Your task to perform on an android device: open a new tab in the chrome app Image 0: 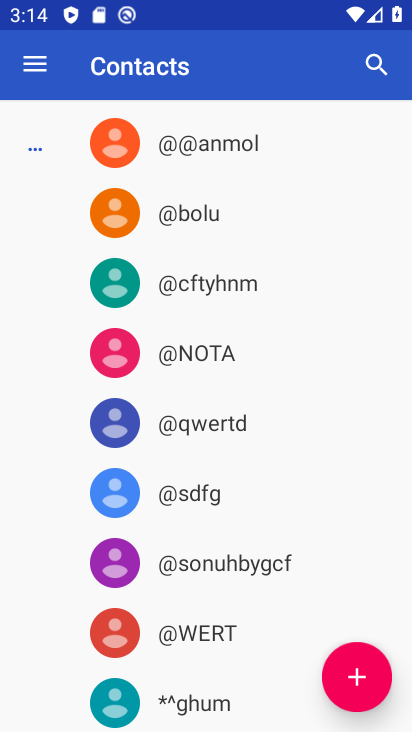
Step 0: press home button
Your task to perform on an android device: open a new tab in the chrome app Image 1: 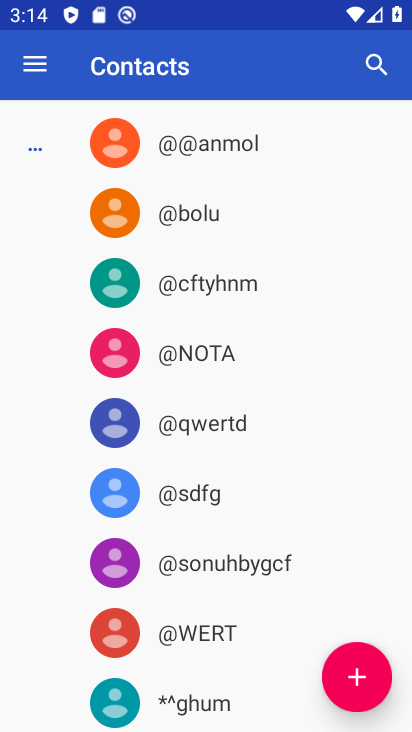
Step 1: press home button
Your task to perform on an android device: open a new tab in the chrome app Image 2: 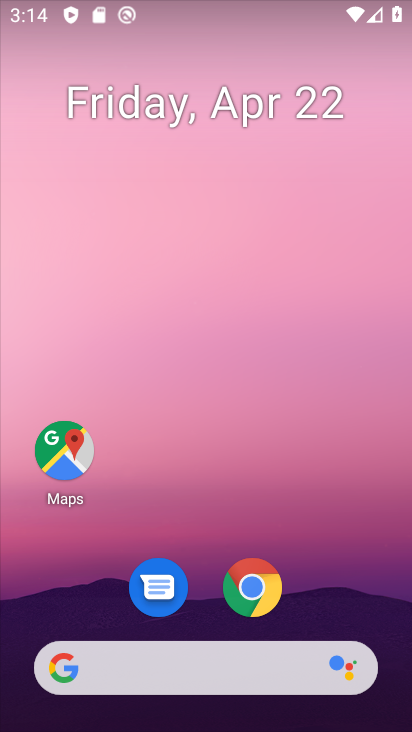
Step 2: click (250, 577)
Your task to perform on an android device: open a new tab in the chrome app Image 3: 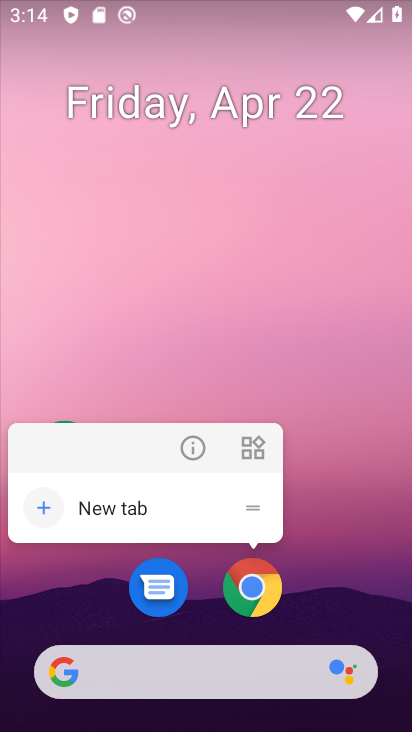
Step 3: click (255, 584)
Your task to perform on an android device: open a new tab in the chrome app Image 4: 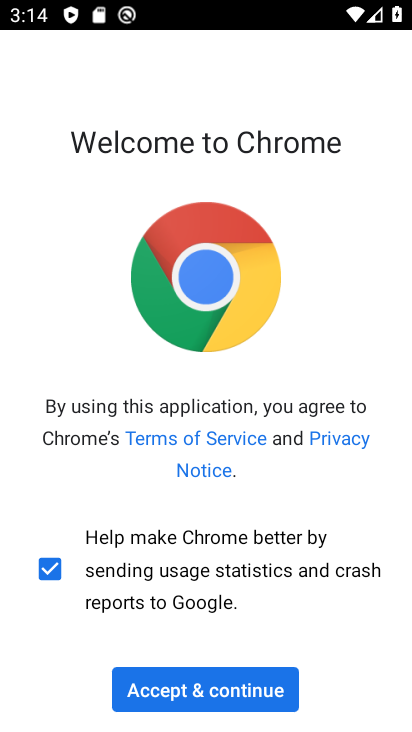
Step 4: click (216, 683)
Your task to perform on an android device: open a new tab in the chrome app Image 5: 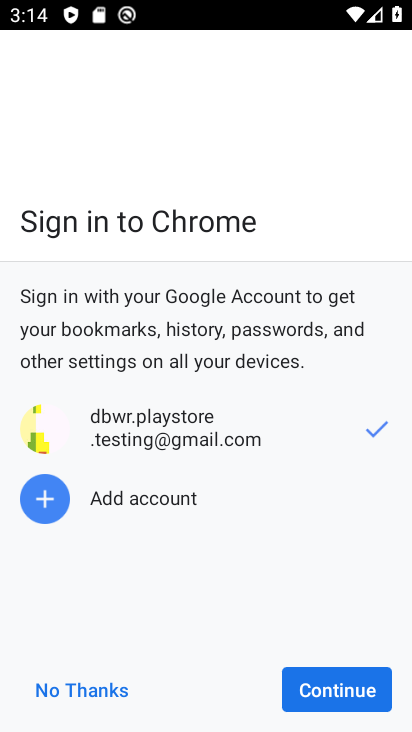
Step 5: click (331, 677)
Your task to perform on an android device: open a new tab in the chrome app Image 6: 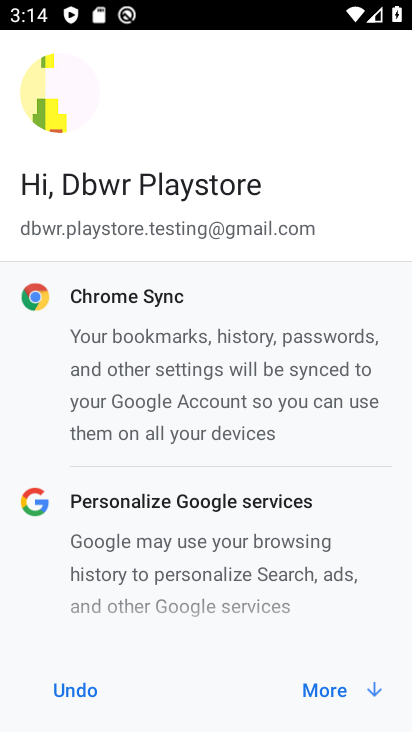
Step 6: click (331, 677)
Your task to perform on an android device: open a new tab in the chrome app Image 7: 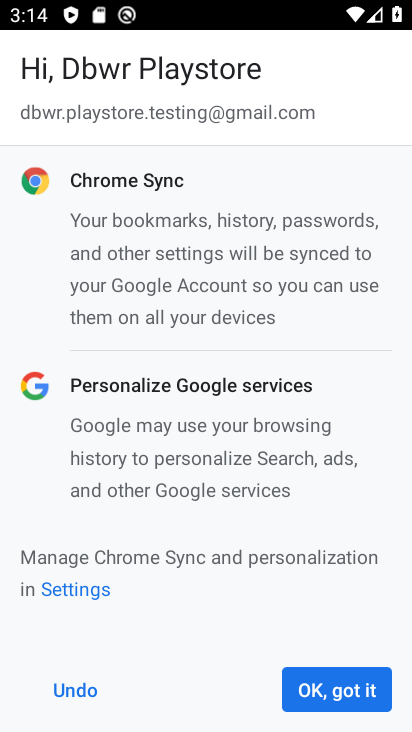
Step 7: click (331, 677)
Your task to perform on an android device: open a new tab in the chrome app Image 8: 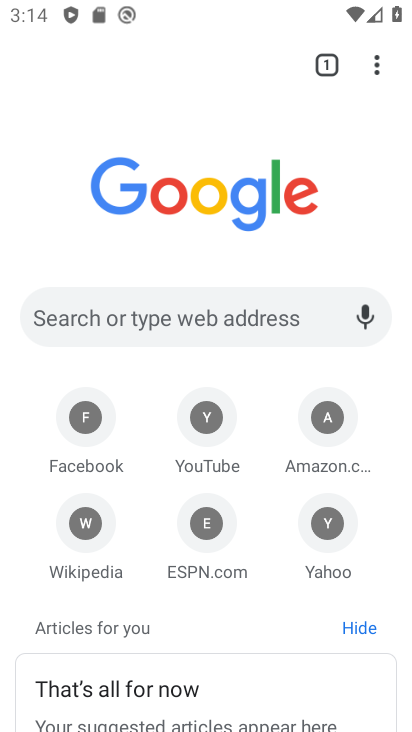
Step 8: click (338, 73)
Your task to perform on an android device: open a new tab in the chrome app Image 9: 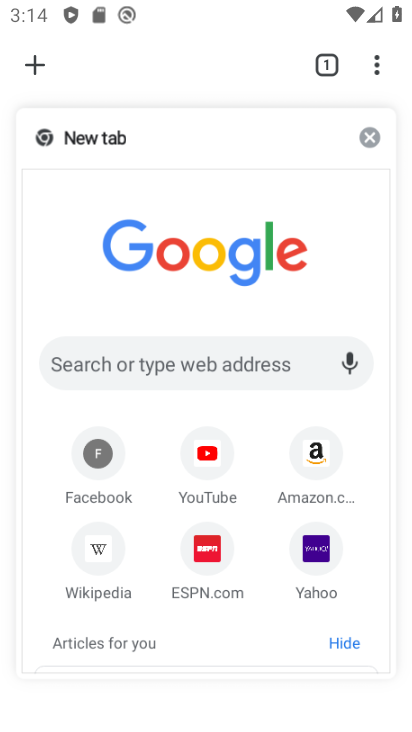
Step 9: click (30, 64)
Your task to perform on an android device: open a new tab in the chrome app Image 10: 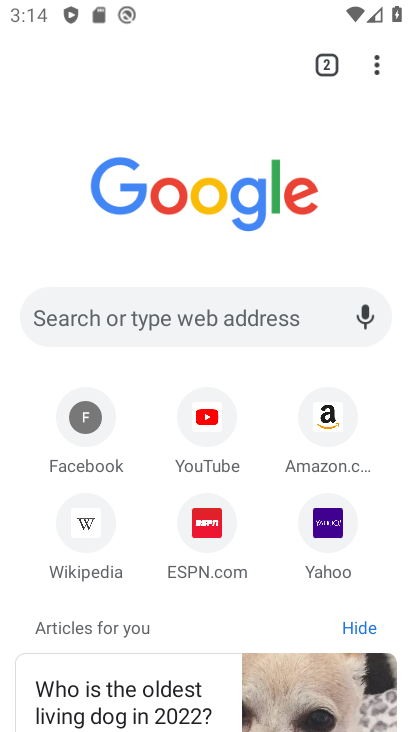
Step 10: task complete